Your task to perform on an android device: turn on the 12-hour format for clock Image 0: 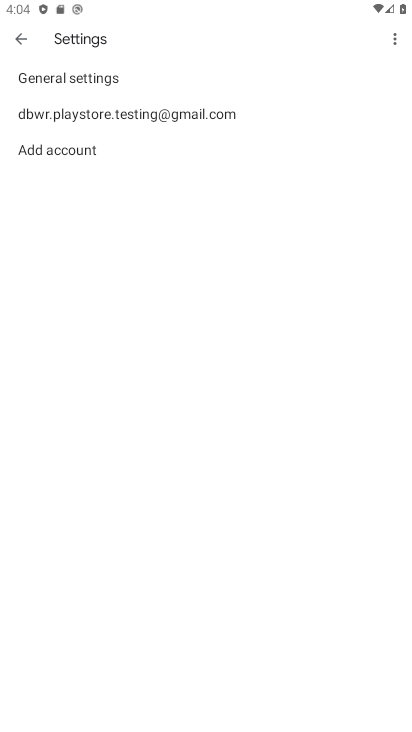
Step 0: press home button
Your task to perform on an android device: turn on the 12-hour format for clock Image 1: 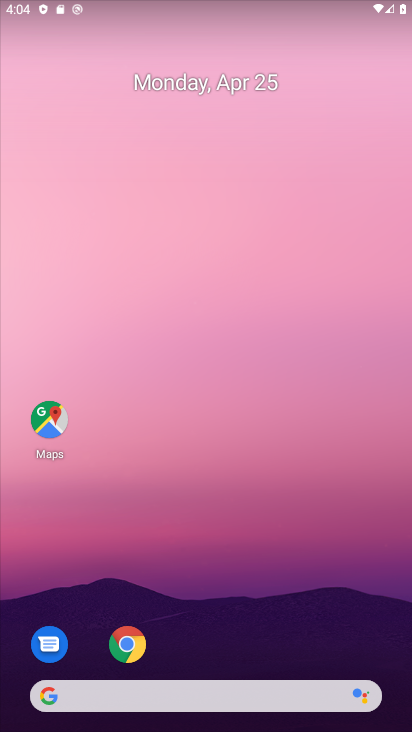
Step 1: drag from (193, 644) to (193, 240)
Your task to perform on an android device: turn on the 12-hour format for clock Image 2: 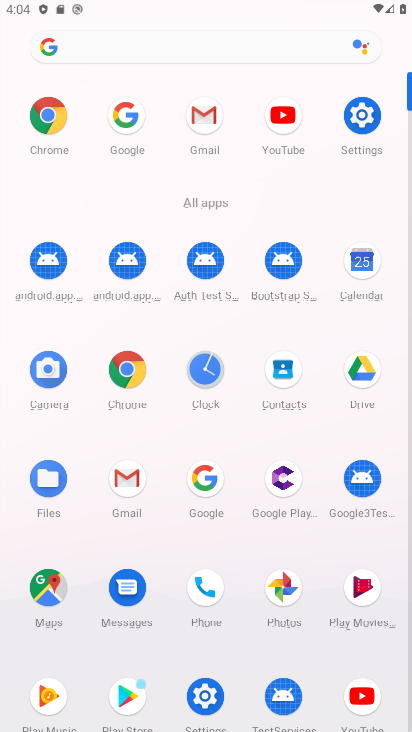
Step 2: click (198, 356)
Your task to perform on an android device: turn on the 12-hour format for clock Image 3: 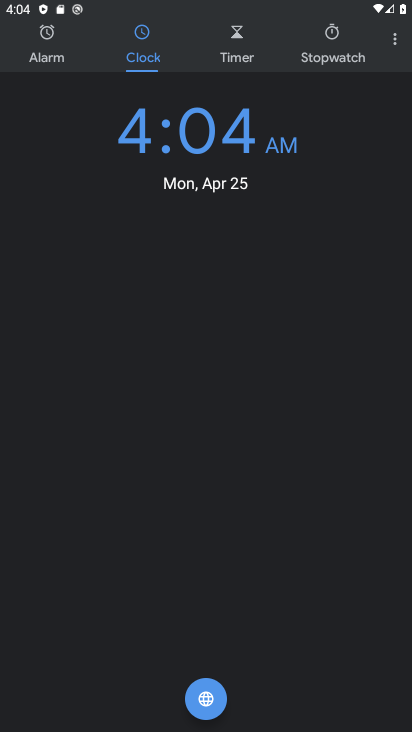
Step 3: click (389, 31)
Your task to perform on an android device: turn on the 12-hour format for clock Image 4: 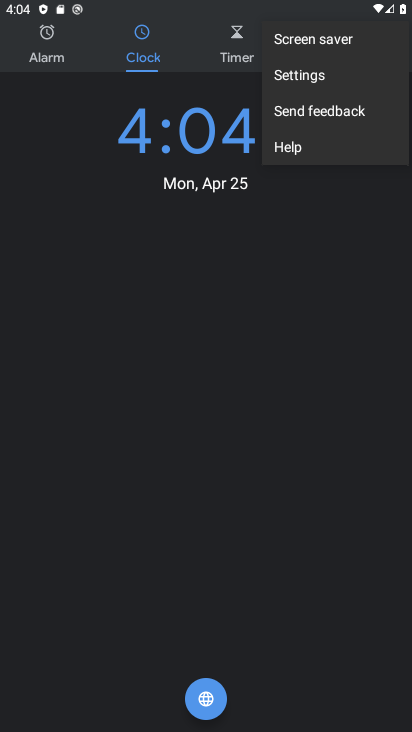
Step 4: click (298, 78)
Your task to perform on an android device: turn on the 12-hour format for clock Image 5: 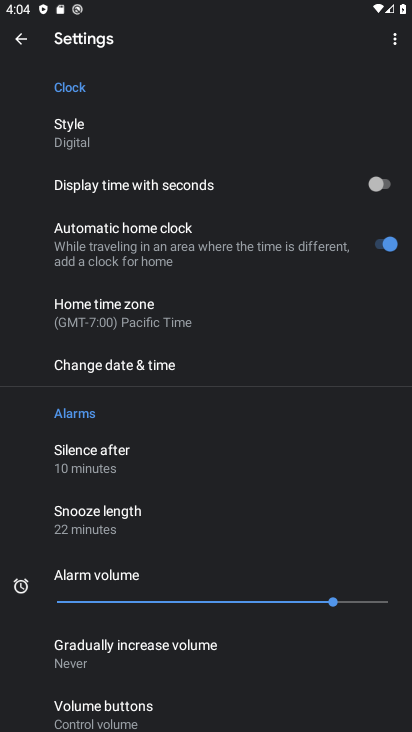
Step 5: click (161, 371)
Your task to perform on an android device: turn on the 12-hour format for clock Image 6: 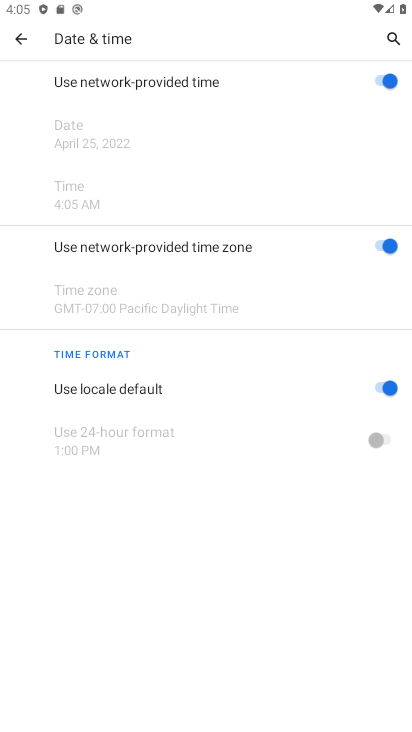
Step 6: task complete